Your task to perform on an android device: Open settings Image 0: 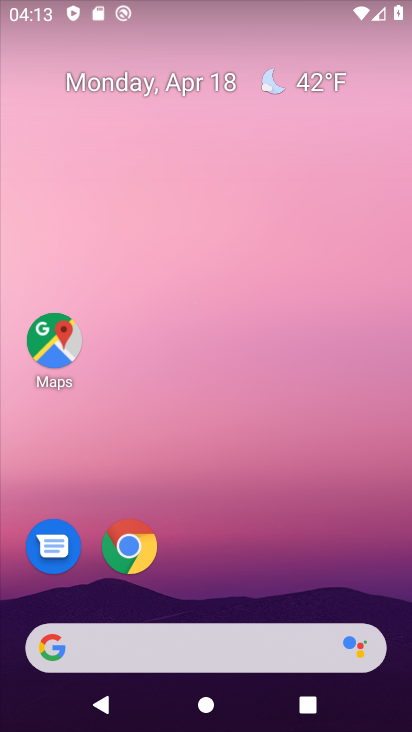
Step 0: drag from (237, 515) to (254, 170)
Your task to perform on an android device: Open settings Image 1: 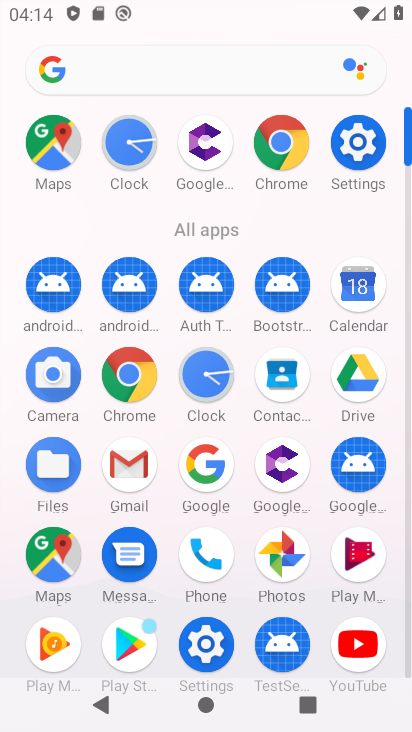
Step 1: click (352, 145)
Your task to perform on an android device: Open settings Image 2: 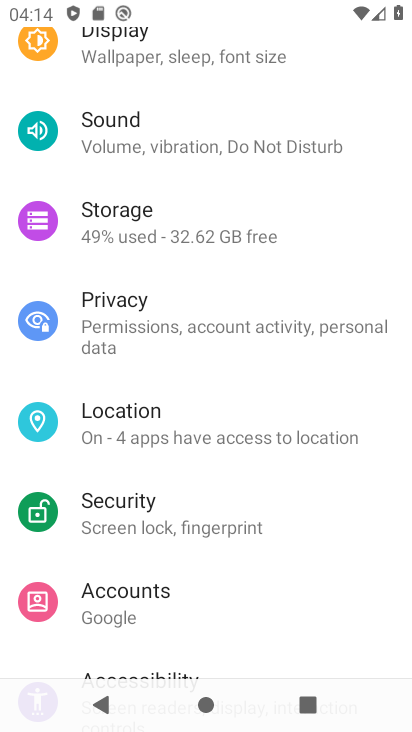
Step 2: task complete